Your task to perform on an android device: Search for a 3d printer on aliexpress Image 0: 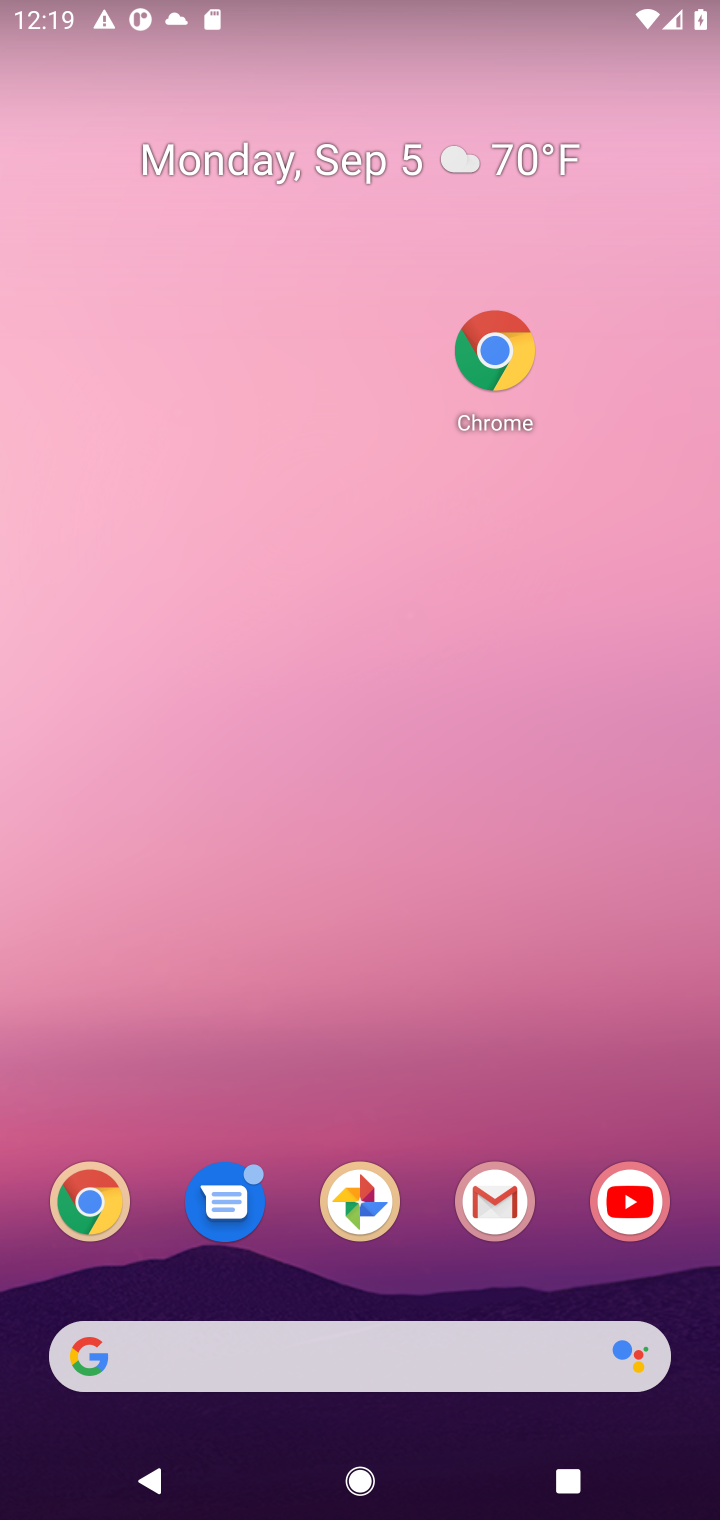
Step 0: drag from (420, 1292) to (366, 161)
Your task to perform on an android device: Search for a 3d printer on aliexpress Image 1: 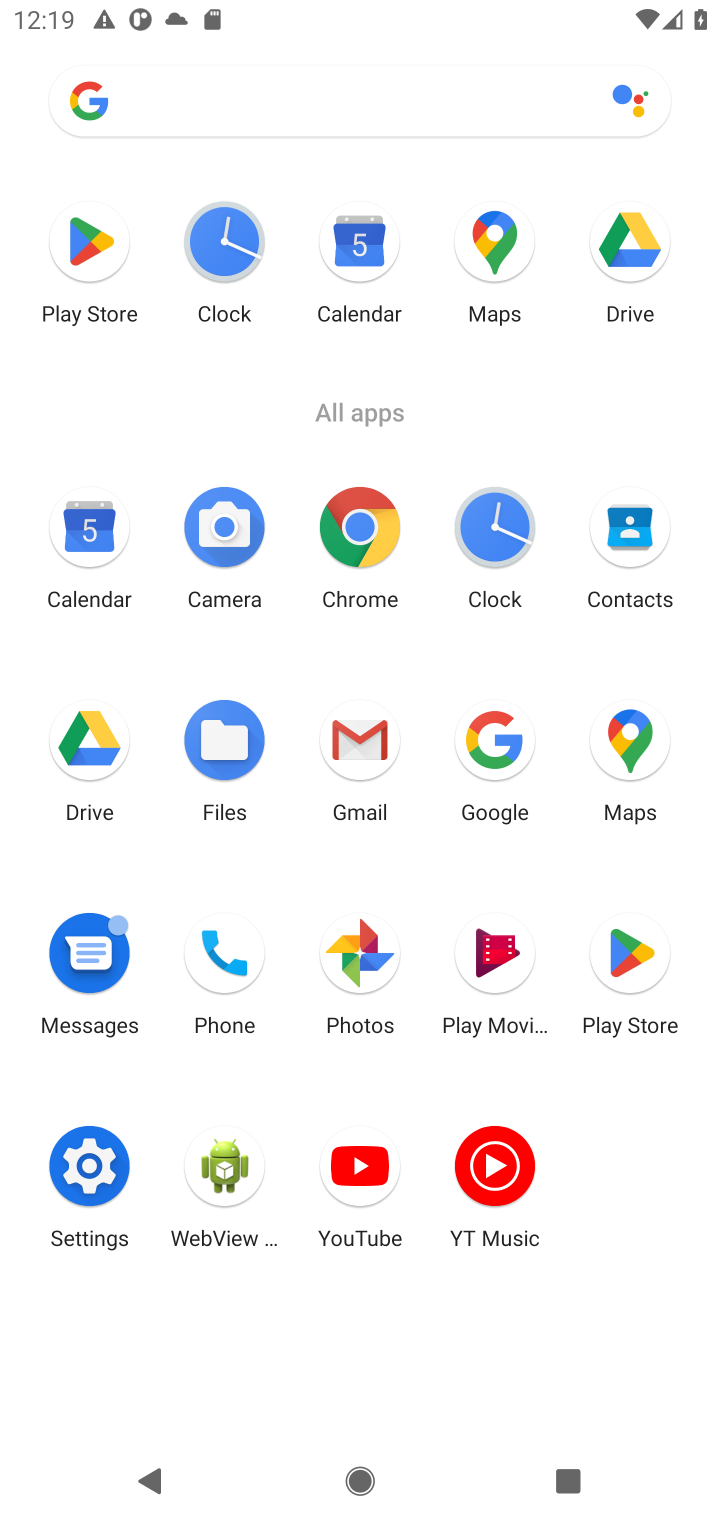
Step 1: click (365, 530)
Your task to perform on an android device: Search for a 3d printer on aliexpress Image 2: 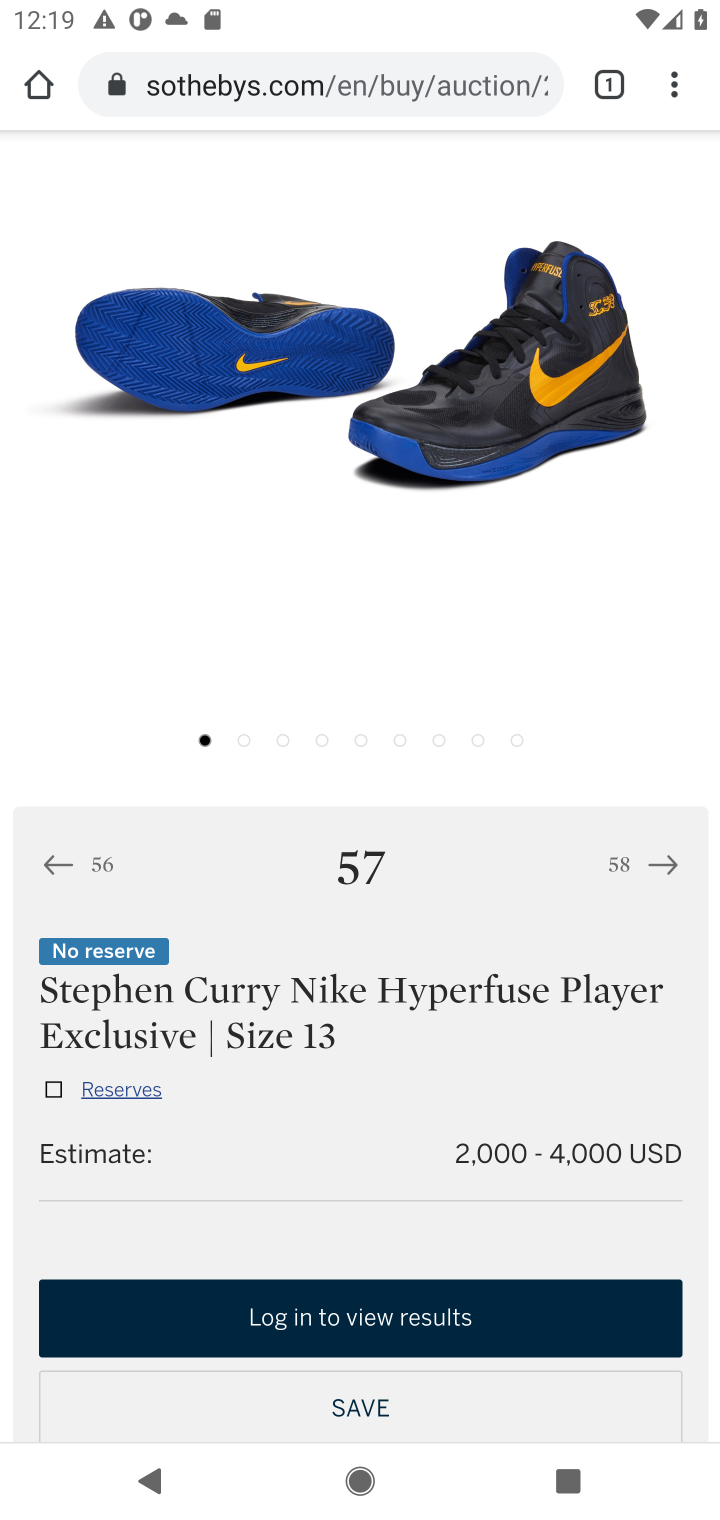
Step 2: drag from (453, 197) to (425, 608)
Your task to perform on an android device: Search for a 3d printer on aliexpress Image 3: 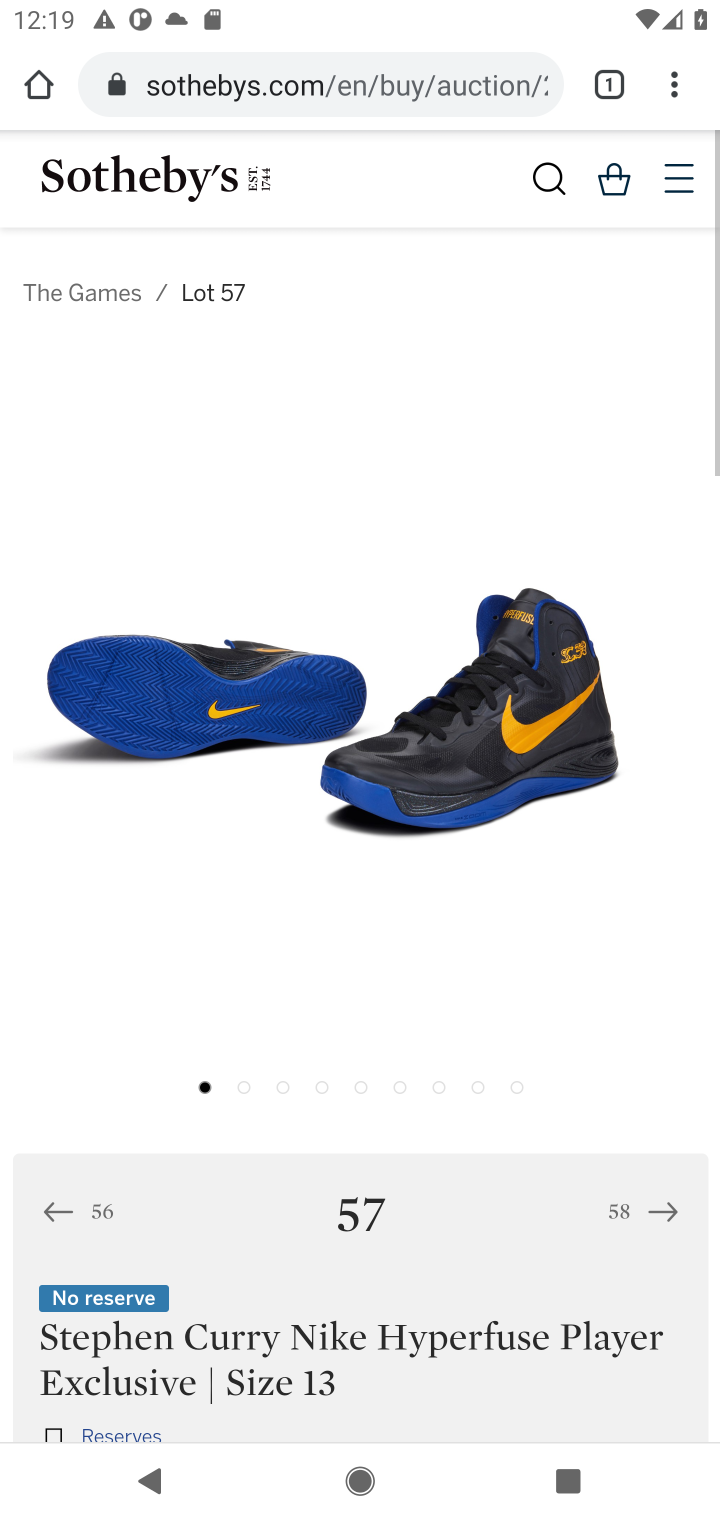
Step 3: click (374, 85)
Your task to perform on an android device: Search for a 3d printer on aliexpress Image 4: 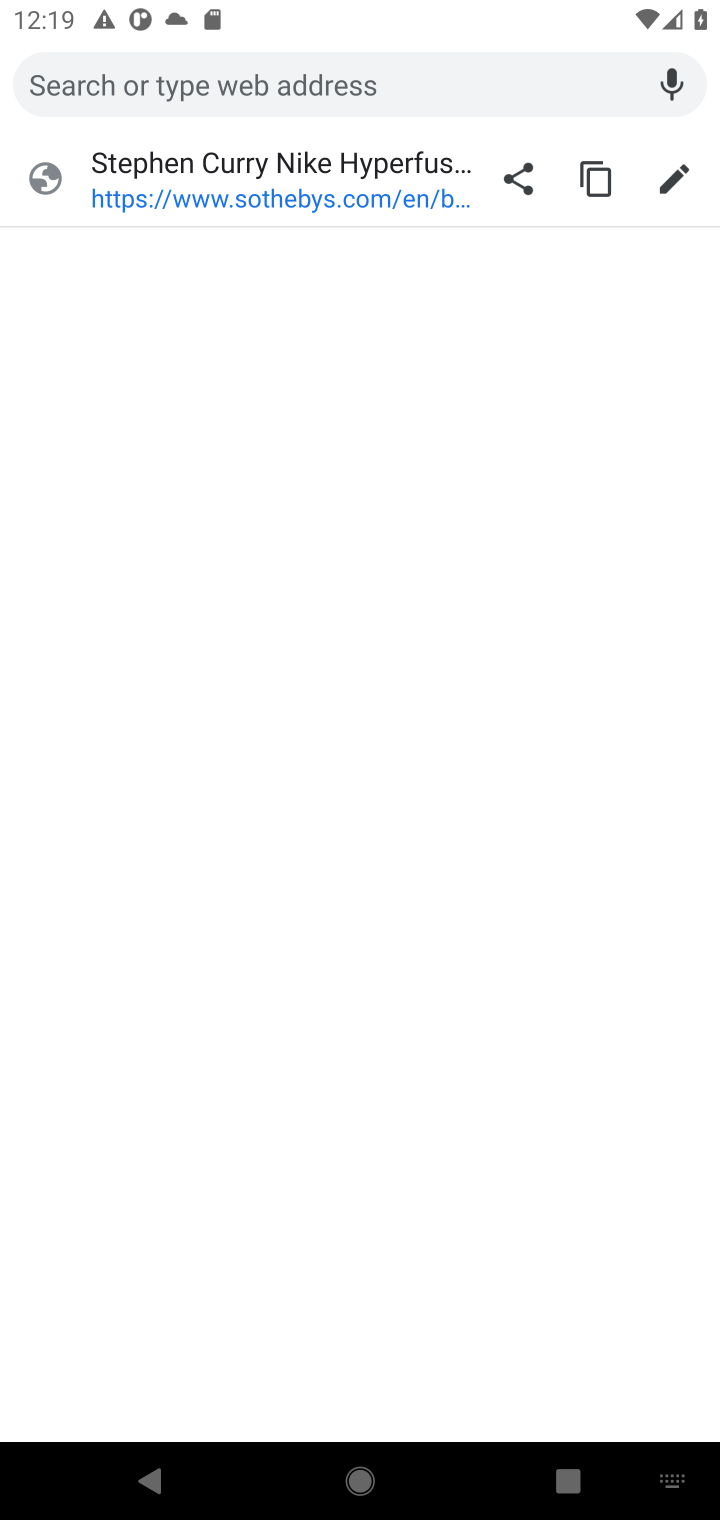
Step 4: type "3d printer on aliexpress"
Your task to perform on an android device: Search for a 3d printer on aliexpress Image 5: 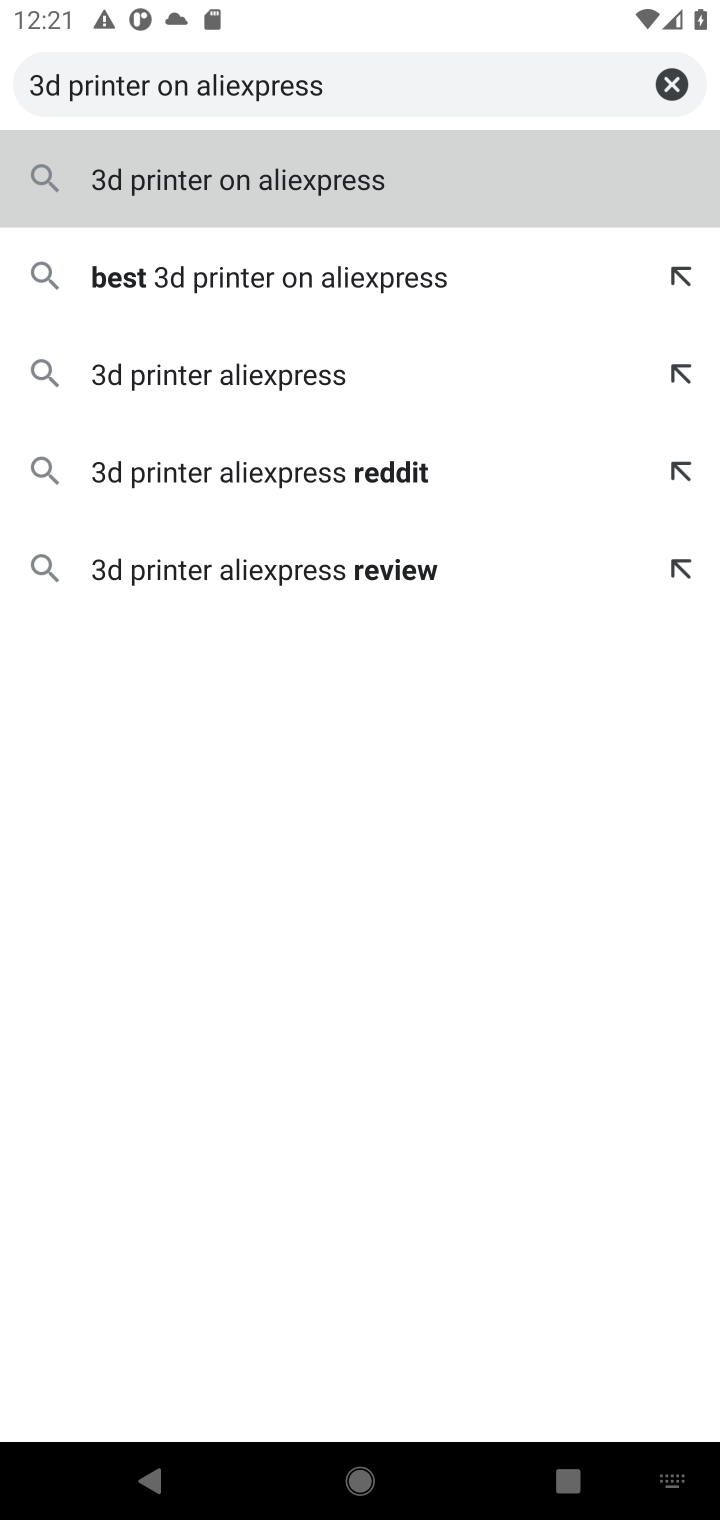
Step 5: press enter
Your task to perform on an android device: Search for a 3d printer on aliexpress Image 6: 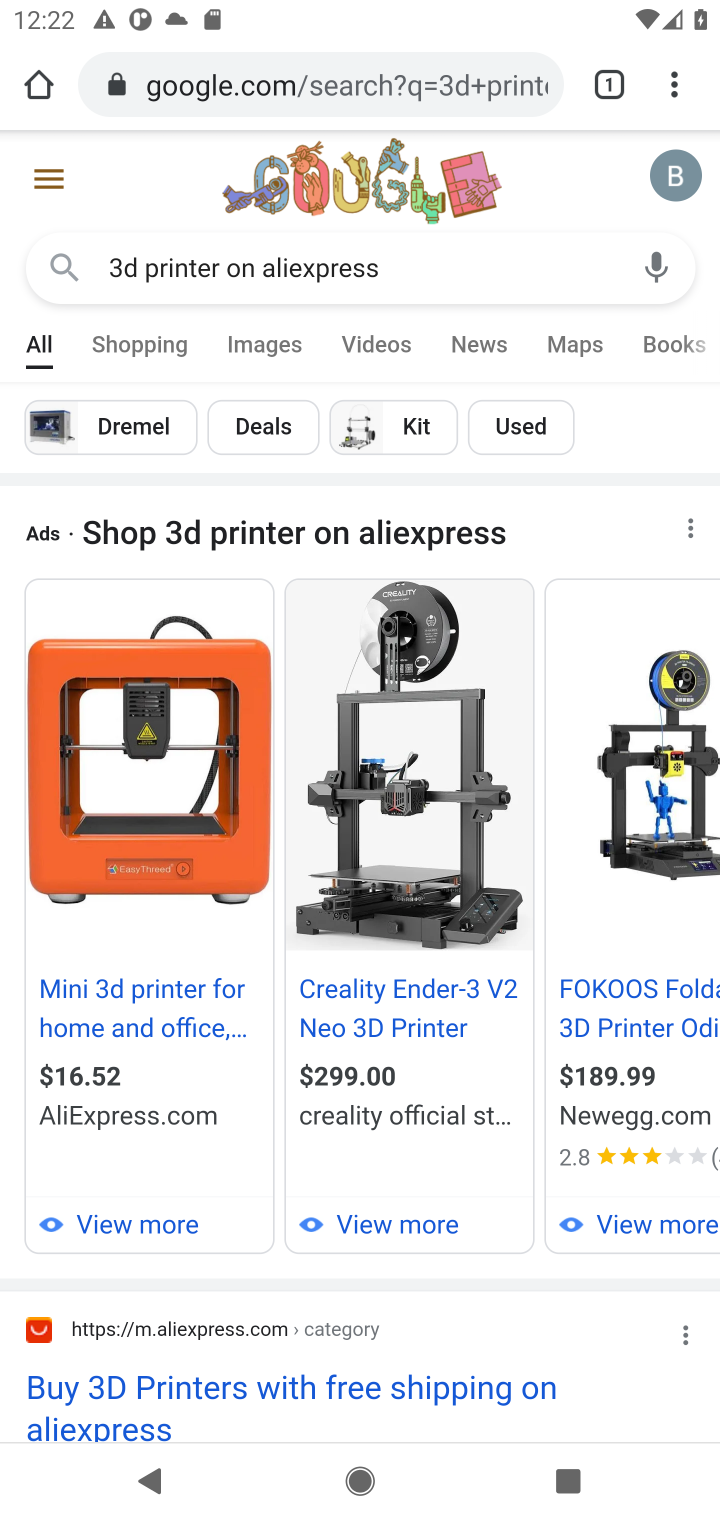
Step 6: drag from (450, 474) to (446, 289)
Your task to perform on an android device: Search for a 3d printer on aliexpress Image 7: 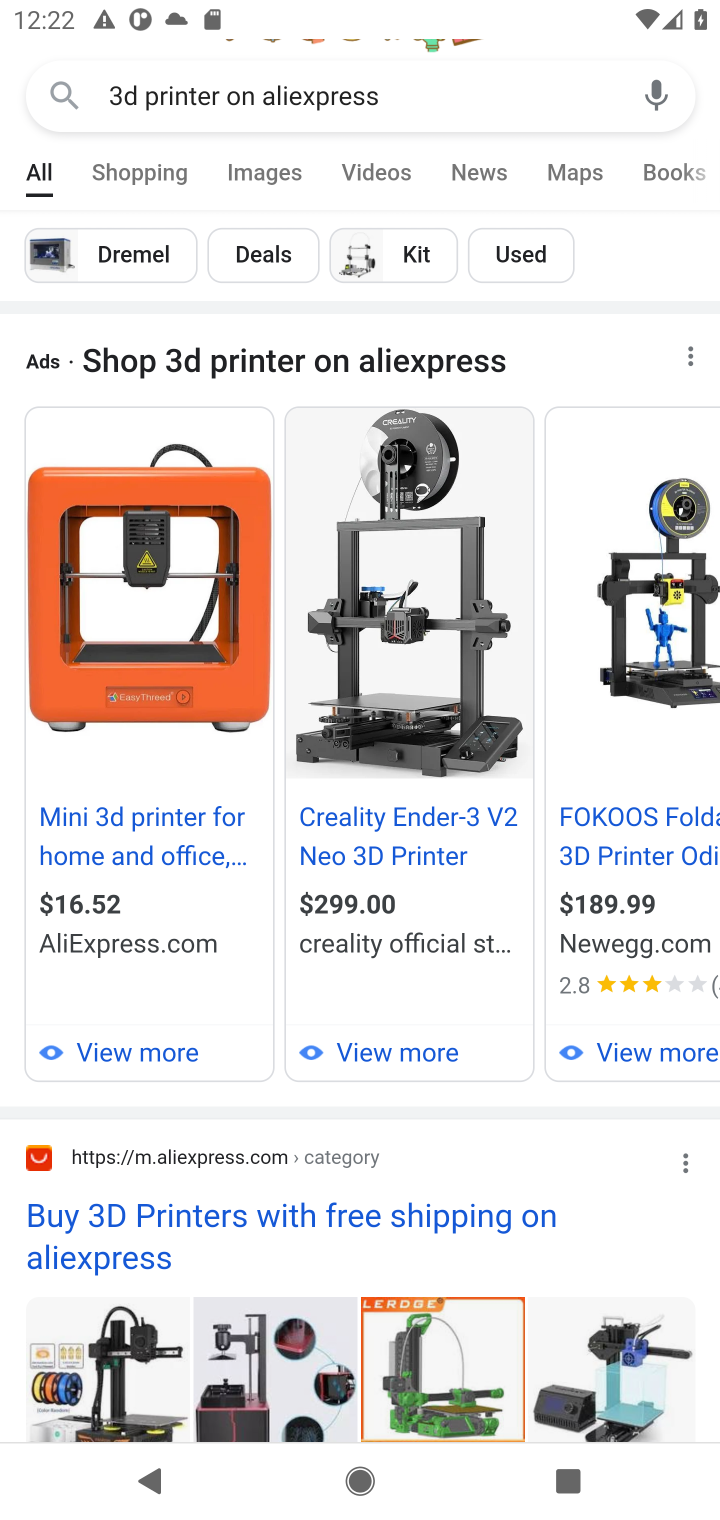
Step 7: click (441, 1209)
Your task to perform on an android device: Search for a 3d printer on aliexpress Image 8: 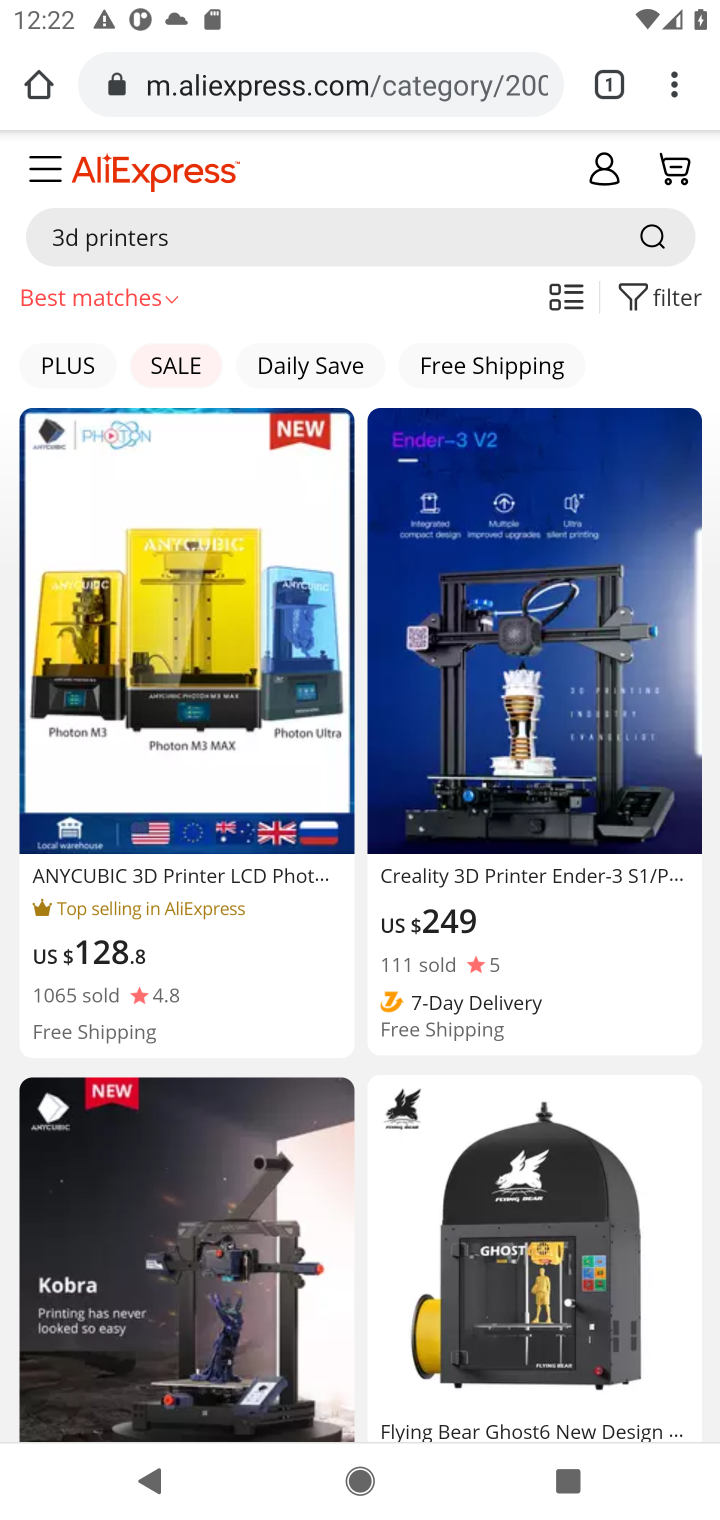
Step 8: task complete